Your task to perform on an android device: turn off javascript in the chrome app Image 0: 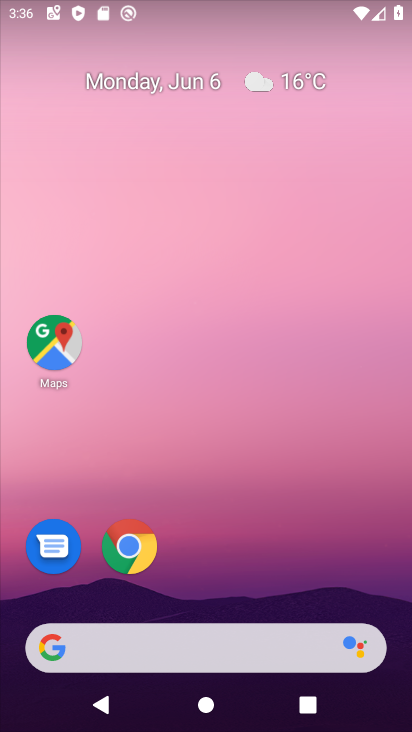
Step 0: drag from (306, 593) to (363, 100)
Your task to perform on an android device: turn off javascript in the chrome app Image 1: 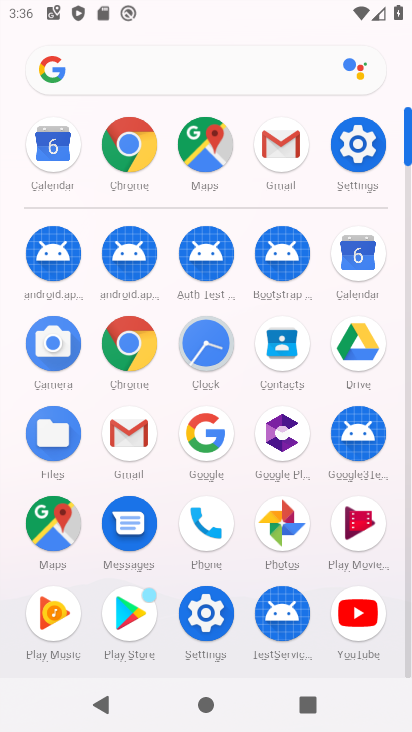
Step 1: click (141, 161)
Your task to perform on an android device: turn off javascript in the chrome app Image 2: 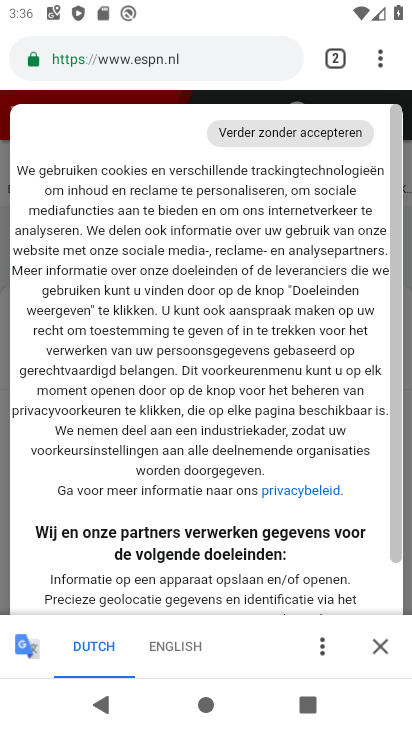
Step 2: drag from (380, 62) to (205, 575)
Your task to perform on an android device: turn off javascript in the chrome app Image 3: 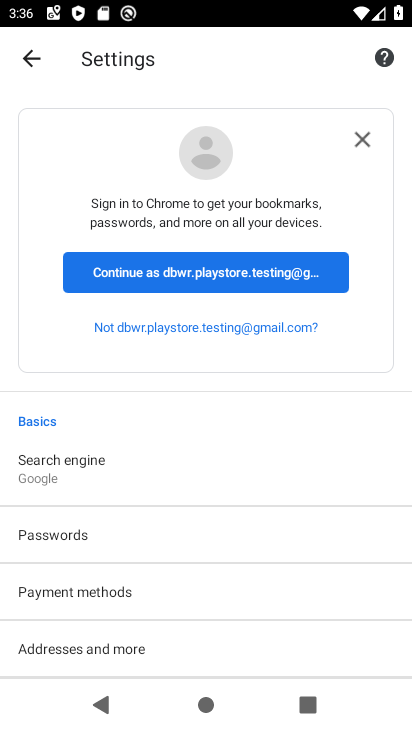
Step 3: drag from (242, 652) to (300, 66)
Your task to perform on an android device: turn off javascript in the chrome app Image 4: 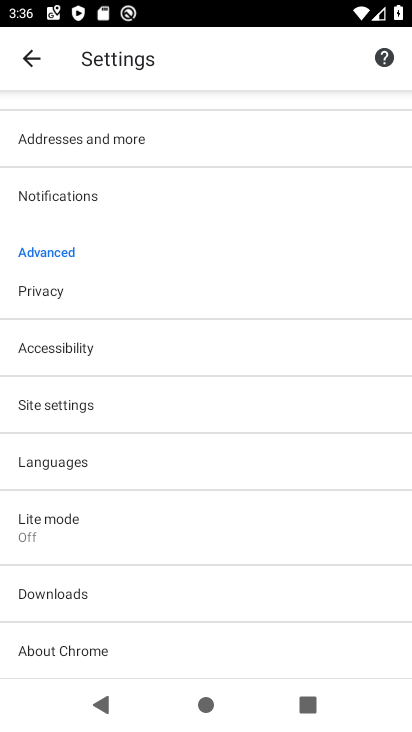
Step 4: click (184, 410)
Your task to perform on an android device: turn off javascript in the chrome app Image 5: 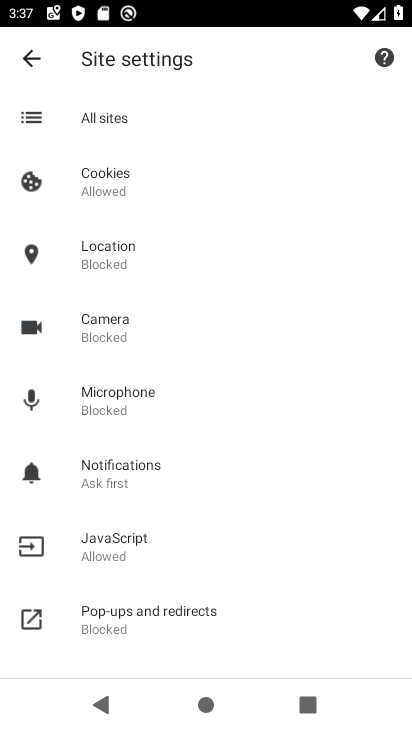
Step 5: click (142, 533)
Your task to perform on an android device: turn off javascript in the chrome app Image 6: 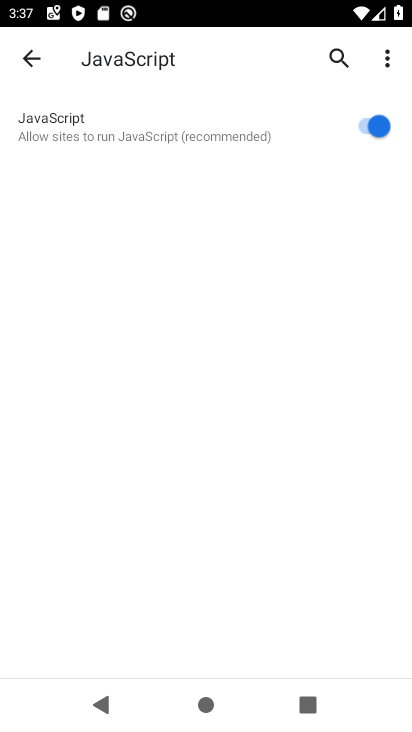
Step 6: click (371, 115)
Your task to perform on an android device: turn off javascript in the chrome app Image 7: 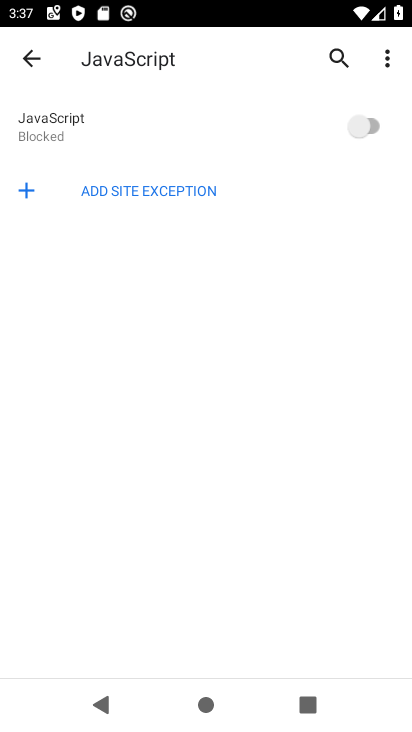
Step 7: task complete